Your task to perform on an android device: Open Google Chrome Image 0: 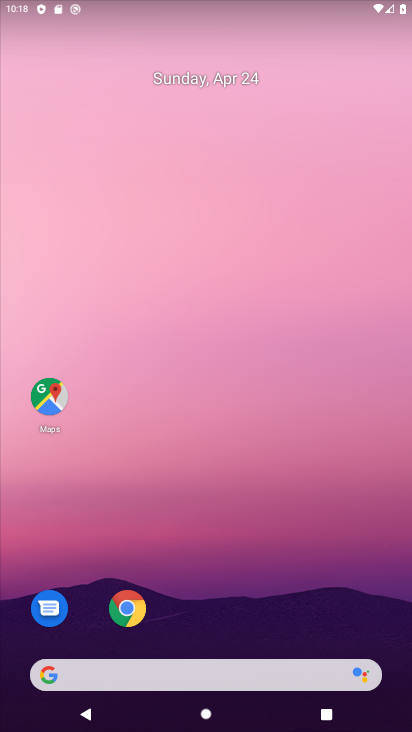
Step 0: drag from (179, 10) to (325, 27)
Your task to perform on an android device: Open Google Chrome Image 1: 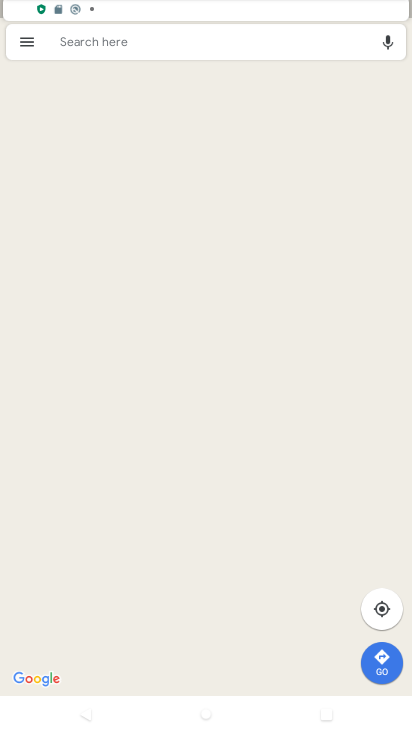
Step 1: press home button
Your task to perform on an android device: Open Google Chrome Image 2: 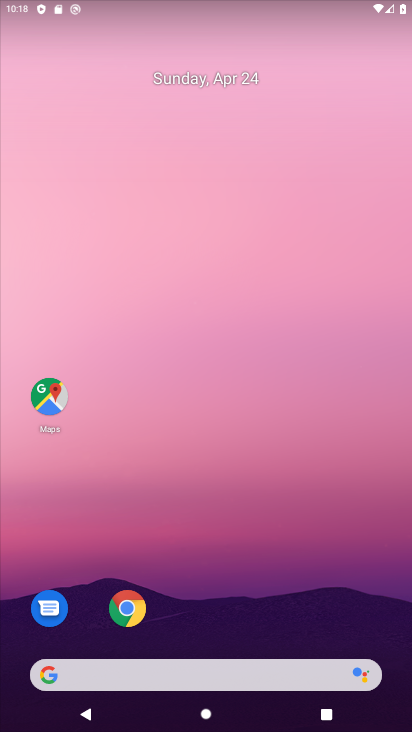
Step 2: drag from (204, 656) to (193, 24)
Your task to perform on an android device: Open Google Chrome Image 3: 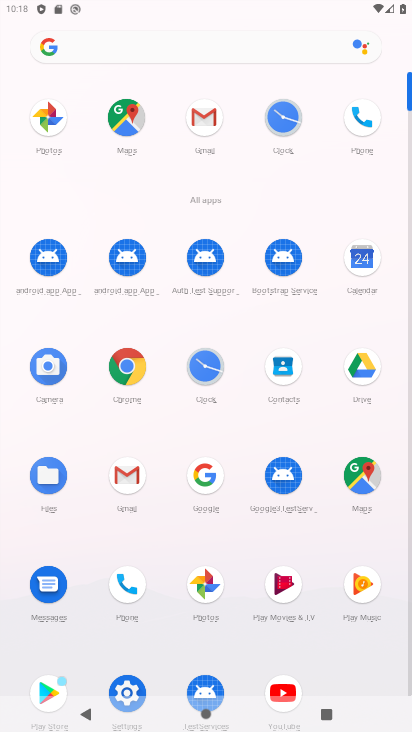
Step 3: click (133, 370)
Your task to perform on an android device: Open Google Chrome Image 4: 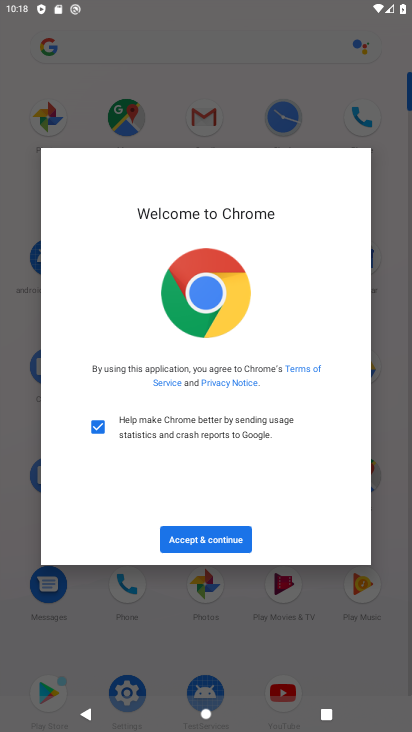
Step 4: click (217, 539)
Your task to perform on an android device: Open Google Chrome Image 5: 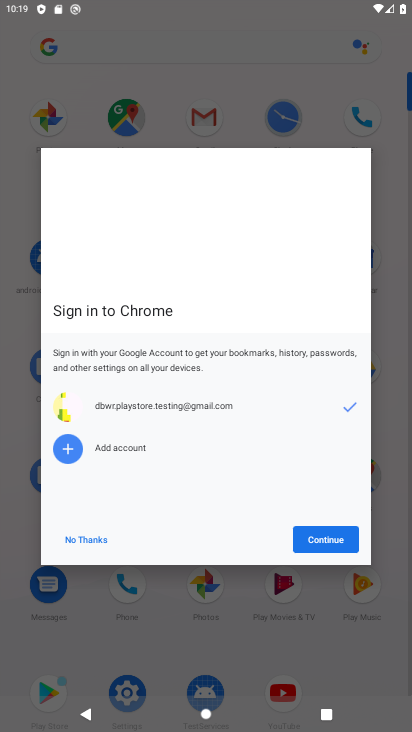
Step 5: click (302, 535)
Your task to perform on an android device: Open Google Chrome Image 6: 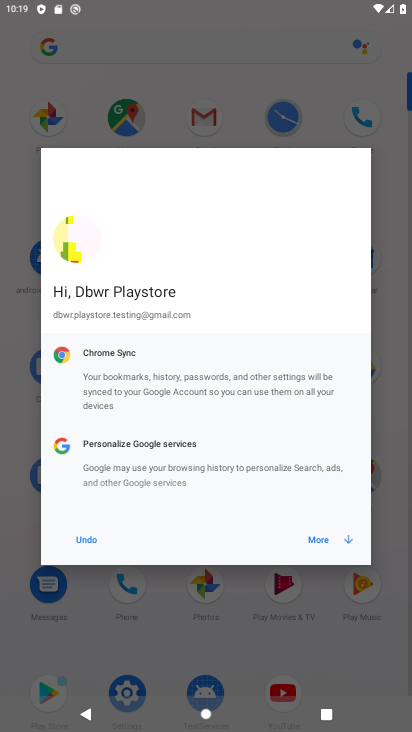
Step 6: click (301, 536)
Your task to perform on an android device: Open Google Chrome Image 7: 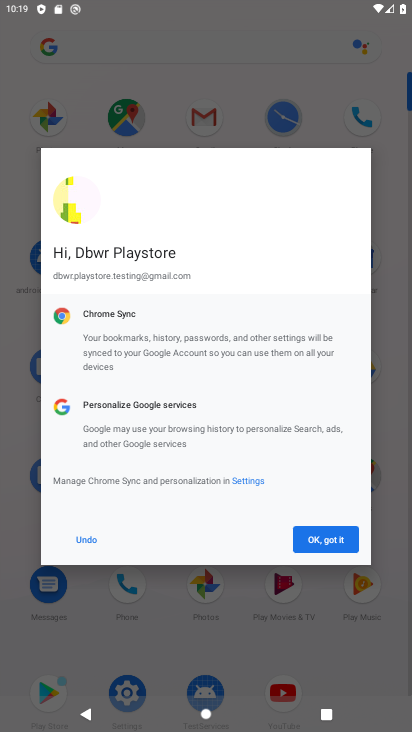
Step 7: click (336, 535)
Your task to perform on an android device: Open Google Chrome Image 8: 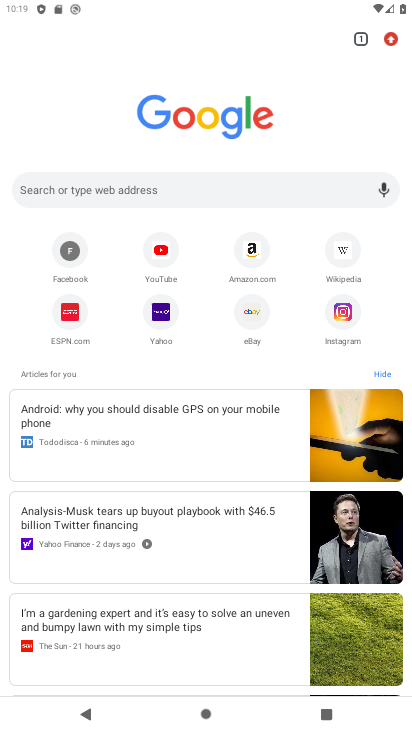
Step 8: task complete